Your task to perform on an android device: turn on priority inbox in the gmail app Image 0: 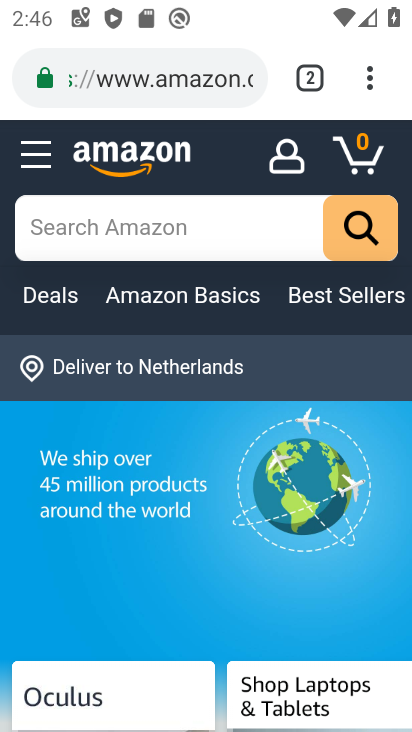
Step 0: press home button
Your task to perform on an android device: turn on priority inbox in the gmail app Image 1: 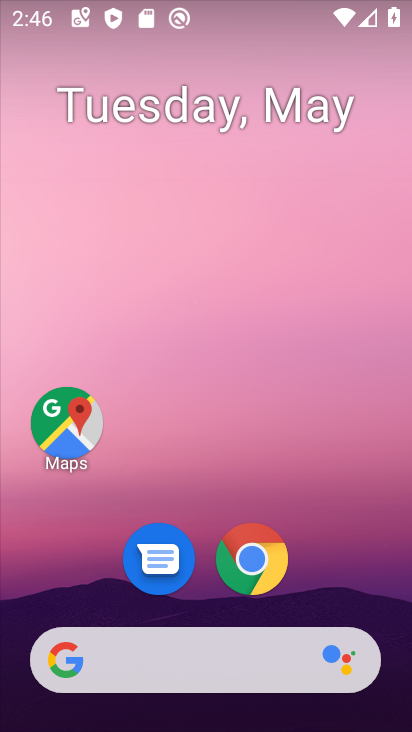
Step 1: drag from (207, 673) to (290, 86)
Your task to perform on an android device: turn on priority inbox in the gmail app Image 2: 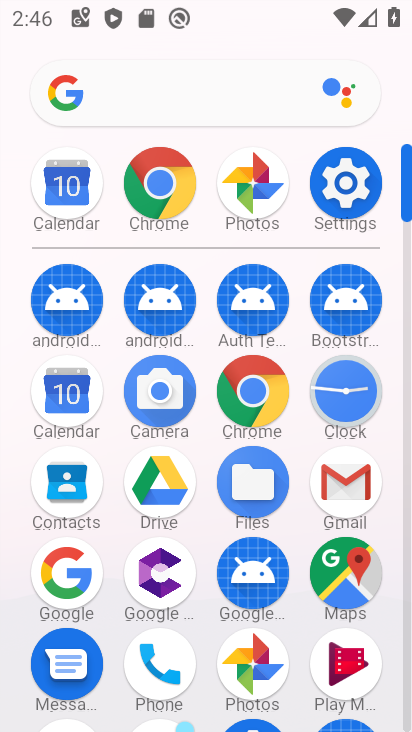
Step 2: click (353, 497)
Your task to perform on an android device: turn on priority inbox in the gmail app Image 3: 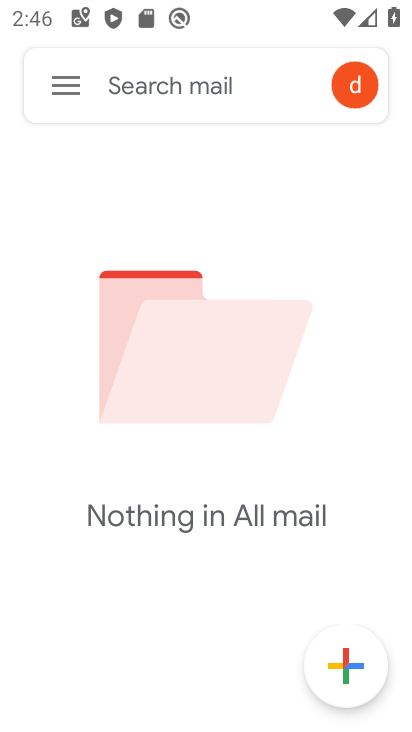
Step 3: click (68, 83)
Your task to perform on an android device: turn on priority inbox in the gmail app Image 4: 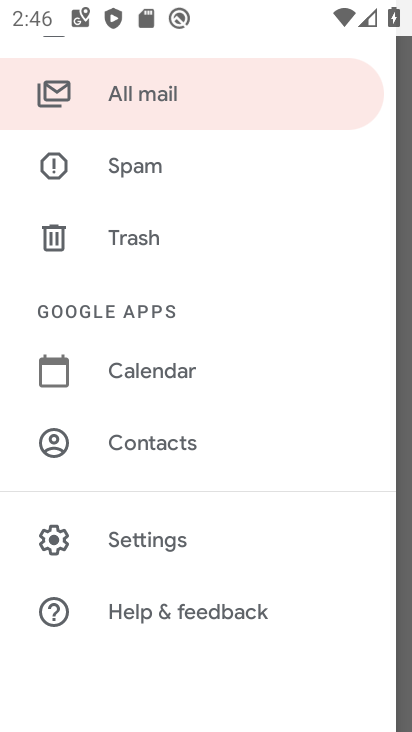
Step 4: click (163, 545)
Your task to perform on an android device: turn on priority inbox in the gmail app Image 5: 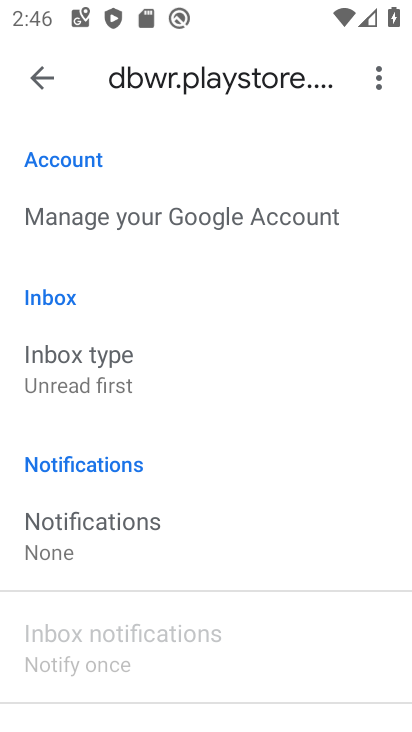
Step 5: click (105, 386)
Your task to perform on an android device: turn on priority inbox in the gmail app Image 6: 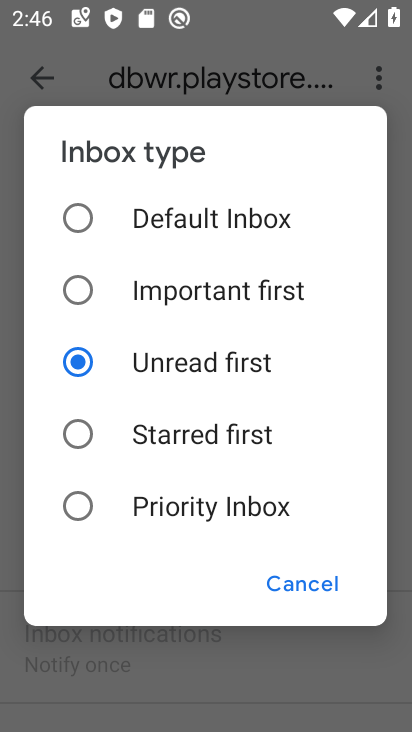
Step 6: click (79, 503)
Your task to perform on an android device: turn on priority inbox in the gmail app Image 7: 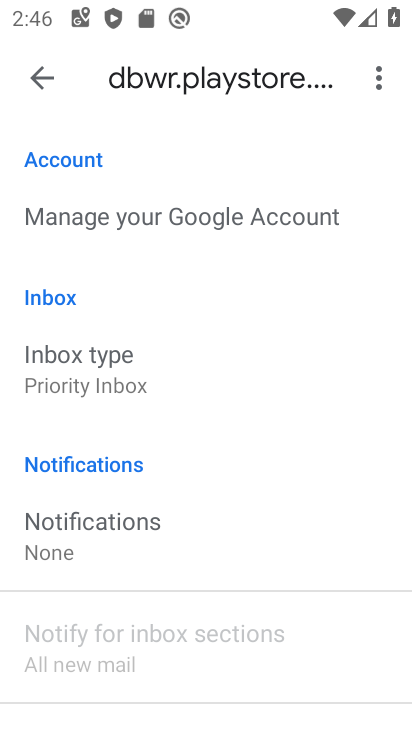
Step 7: task complete